Your task to perform on an android device: Find coffee shops on Maps Image 0: 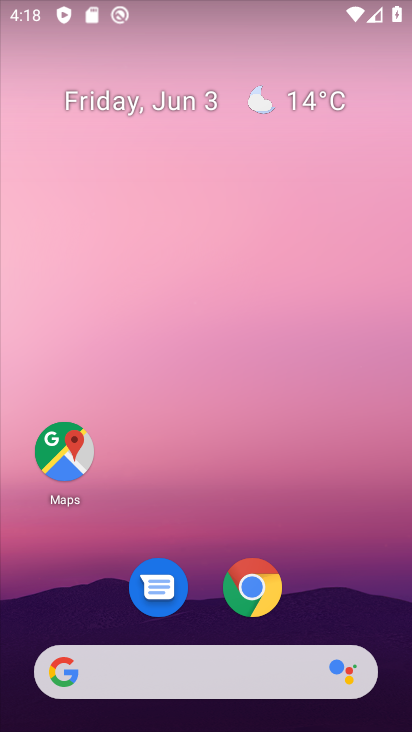
Step 0: drag from (155, 633) to (195, 318)
Your task to perform on an android device: Find coffee shops on Maps Image 1: 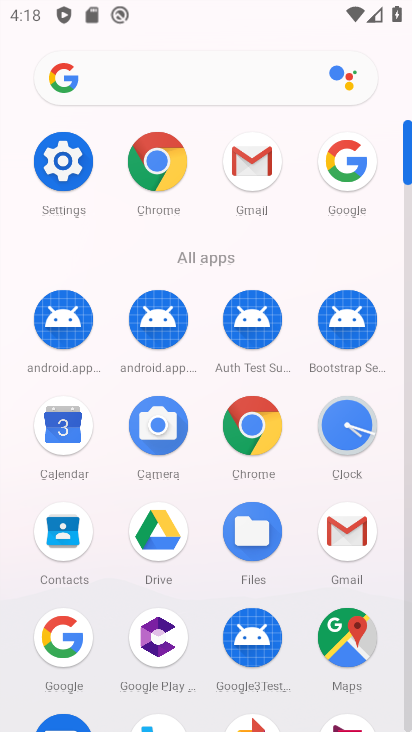
Step 1: click (350, 642)
Your task to perform on an android device: Find coffee shops on Maps Image 2: 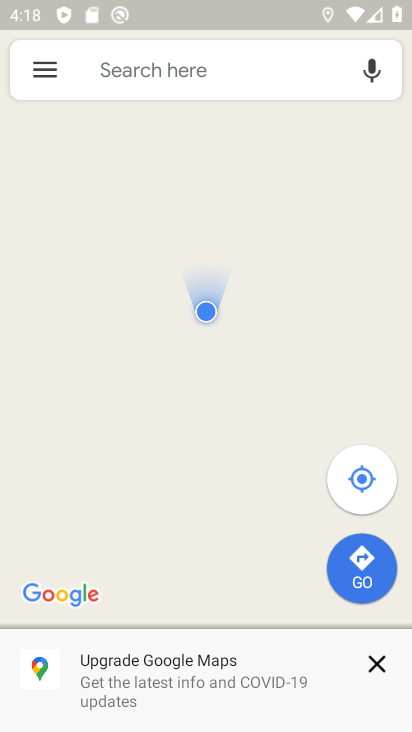
Step 2: click (187, 51)
Your task to perform on an android device: Find coffee shops on Maps Image 3: 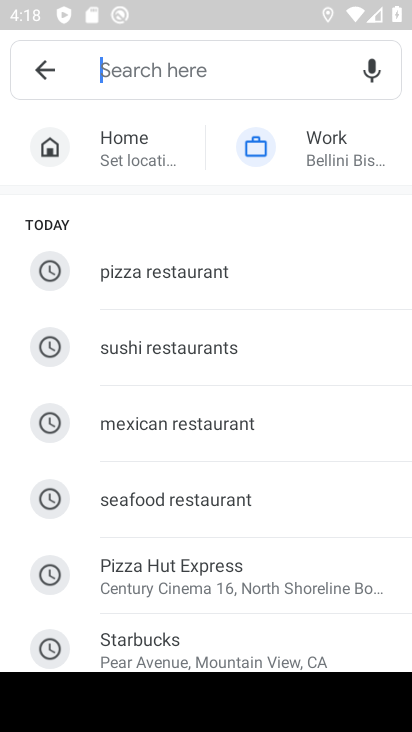
Step 3: drag from (174, 619) to (162, 300)
Your task to perform on an android device: Find coffee shops on Maps Image 4: 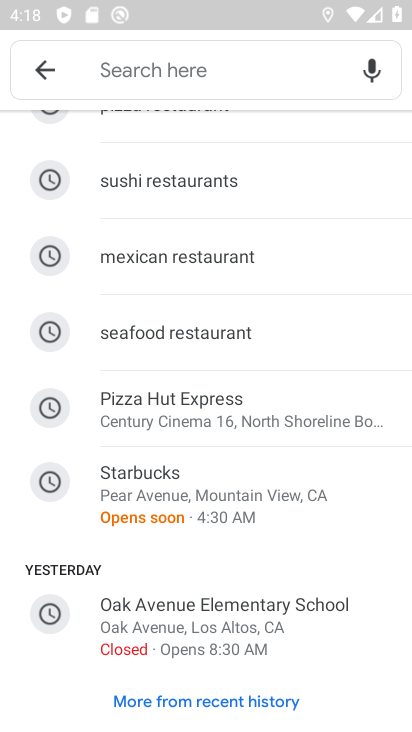
Step 4: click (140, 699)
Your task to perform on an android device: Find coffee shops on Maps Image 5: 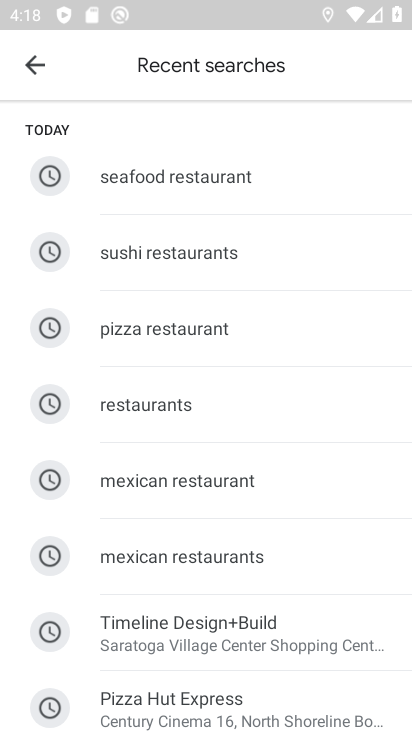
Step 5: drag from (123, 699) to (178, 304)
Your task to perform on an android device: Find coffee shops on Maps Image 6: 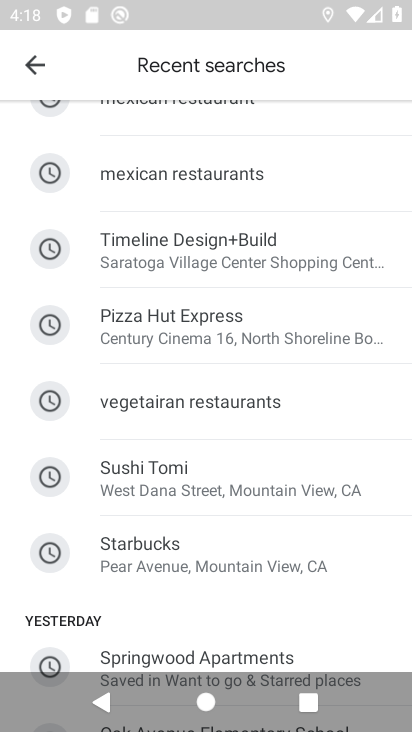
Step 6: drag from (181, 594) to (187, 305)
Your task to perform on an android device: Find coffee shops on Maps Image 7: 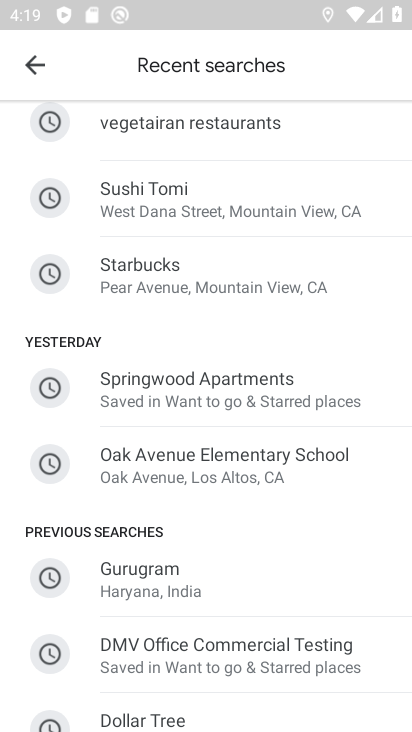
Step 7: click (34, 54)
Your task to perform on an android device: Find coffee shops on Maps Image 8: 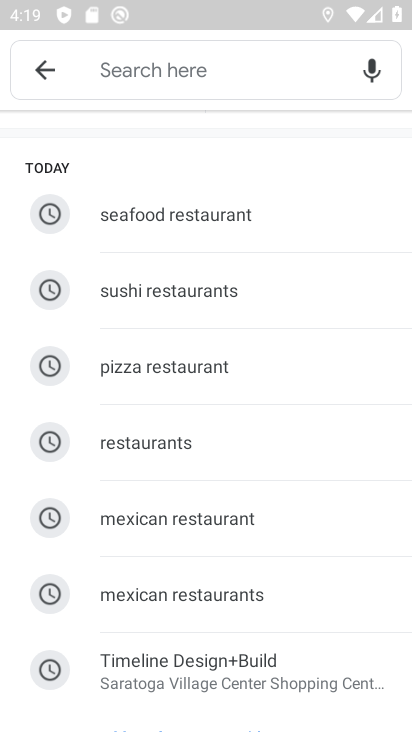
Step 8: click (172, 70)
Your task to perform on an android device: Find coffee shops on Maps Image 9: 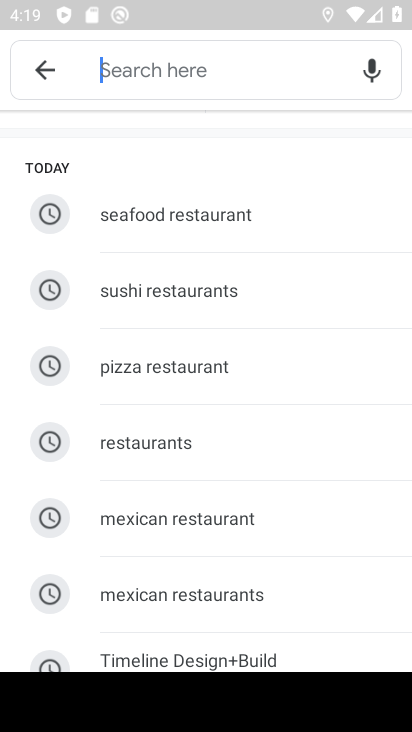
Step 9: type "coffee"
Your task to perform on an android device: Find coffee shops on Maps Image 10: 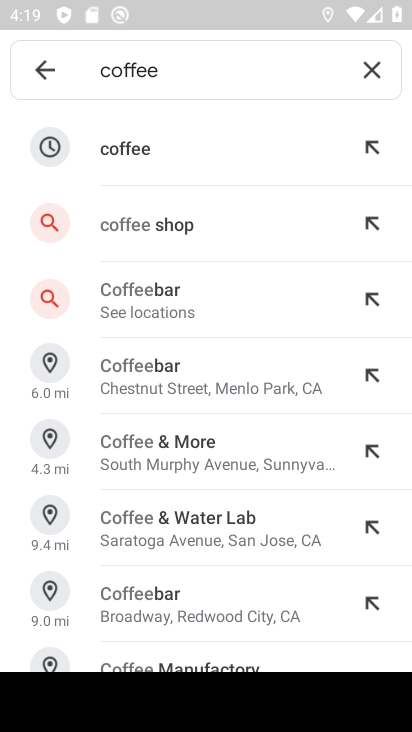
Step 10: click (157, 154)
Your task to perform on an android device: Find coffee shops on Maps Image 11: 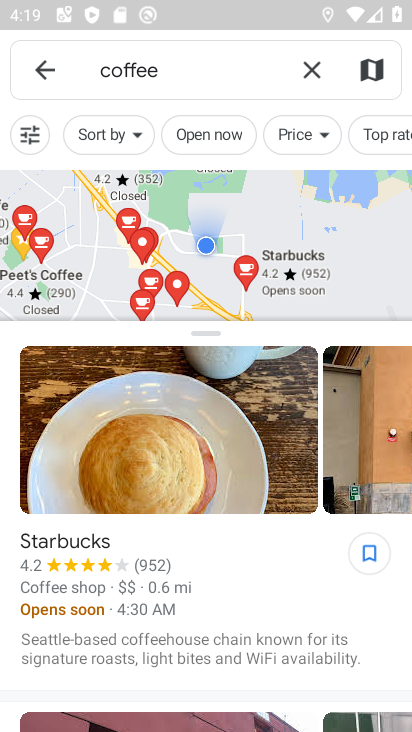
Step 11: task complete